Your task to perform on an android device: Open Google Chrome and open the bookmarks view Image 0: 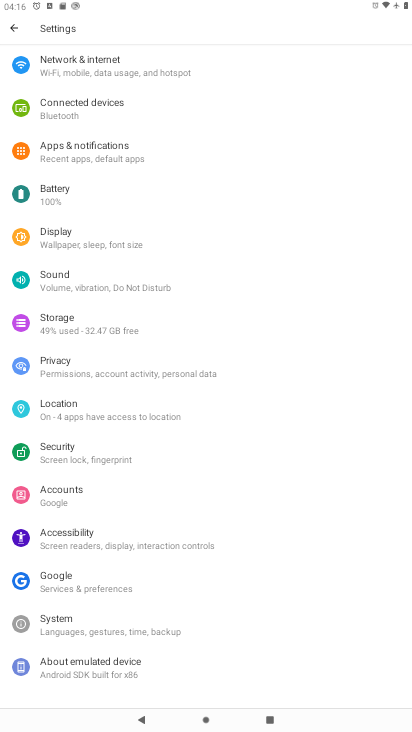
Step 0: press home button
Your task to perform on an android device: Open Google Chrome and open the bookmarks view Image 1: 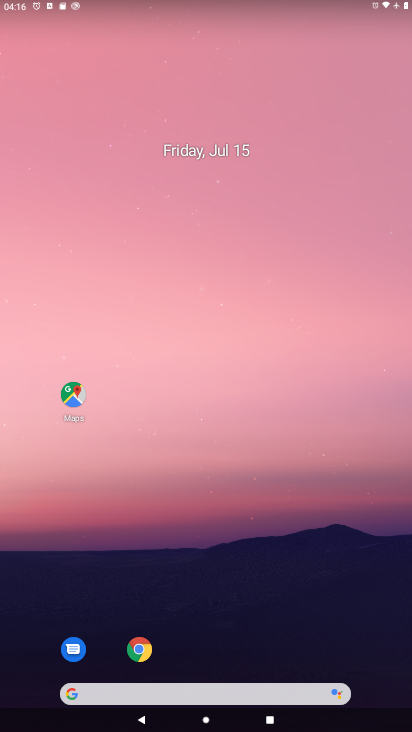
Step 1: click (138, 653)
Your task to perform on an android device: Open Google Chrome and open the bookmarks view Image 2: 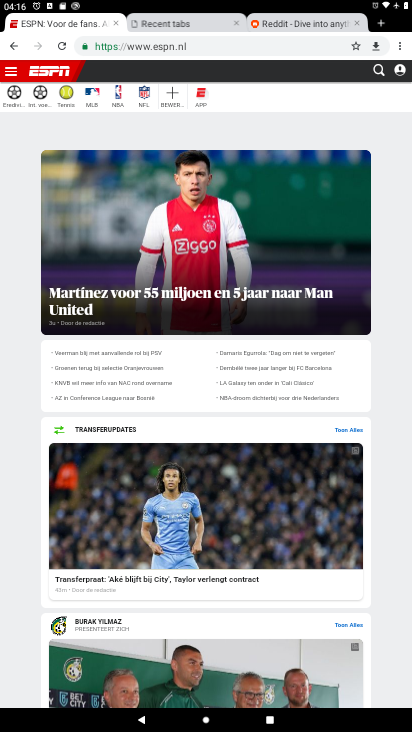
Step 2: click (396, 46)
Your task to perform on an android device: Open Google Chrome and open the bookmarks view Image 3: 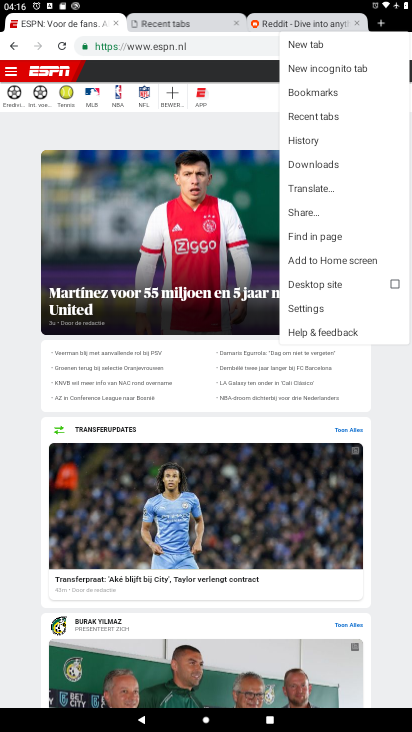
Step 3: click (313, 91)
Your task to perform on an android device: Open Google Chrome and open the bookmarks view Image 4: 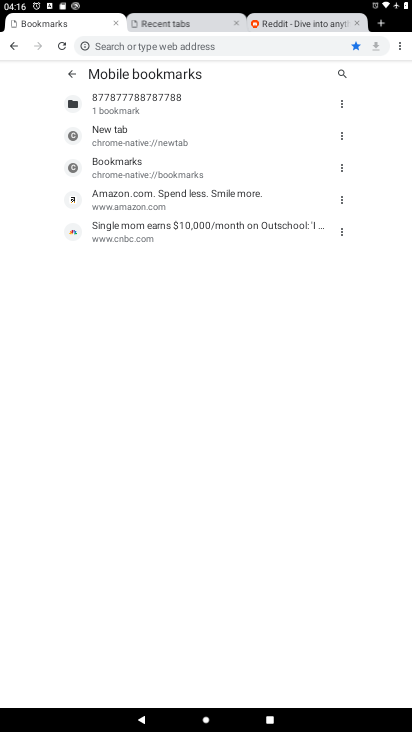
Step 4: task complete